Your task to perform on an android device: Open Google Chrome and open the bookmarks view Image 0: 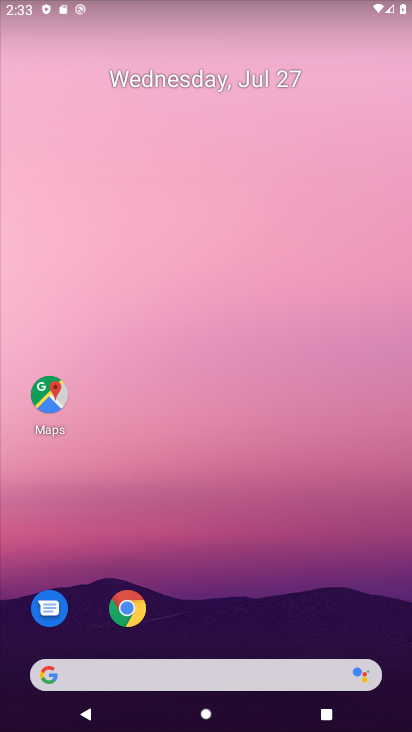
Step 0: click (128, 604)
Your task to perform on an android device: Open Google Chrome and open the bookmarks view Image 1: 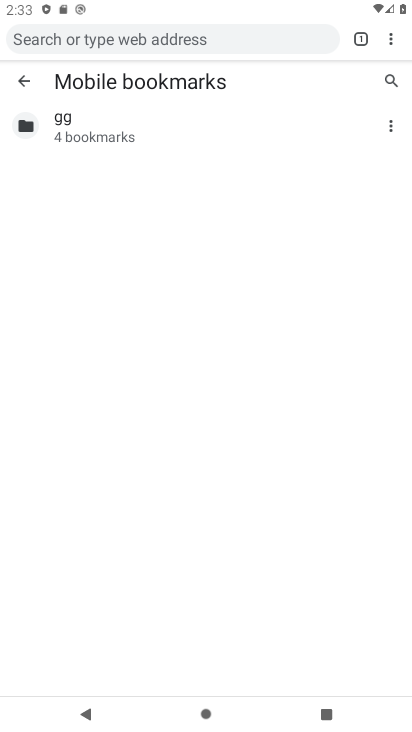
Step 1: task complete